Your task to perform on an android device: Open internet settings Image 0: 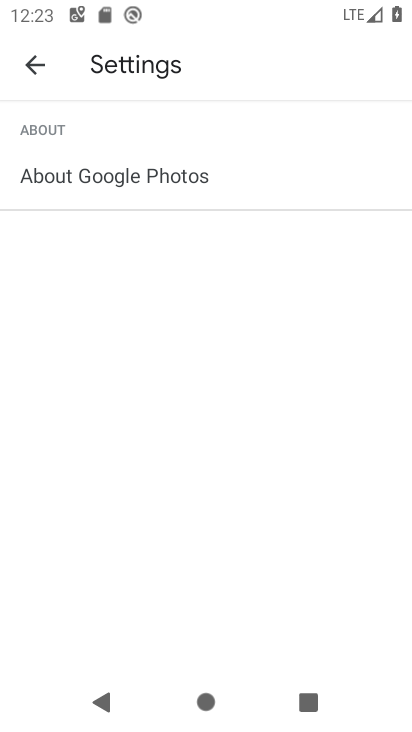
Step 0: press home button
Your task to perform on an android device: Open internet settings Image 1: 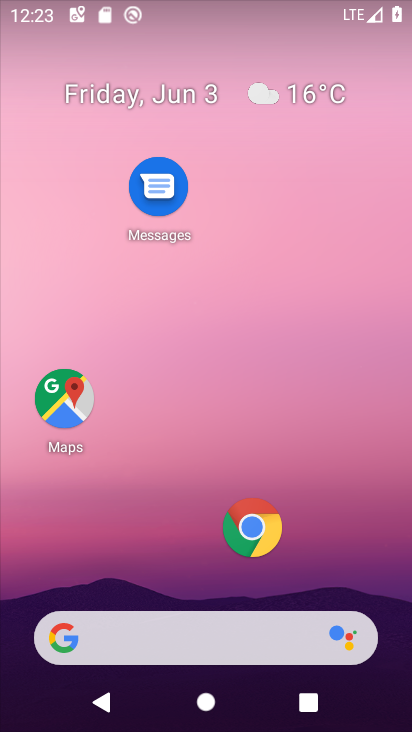
Step 1: drag from (207, 583) to (257, 200)
Your task to perform on an android device: Open internet settings Image 2: 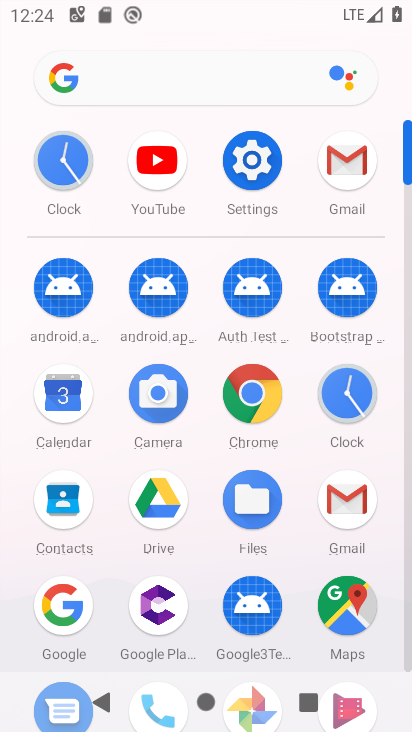
Step 2: click (249, 149)
Your task to perform on an android device: Open internet settings Image 3: 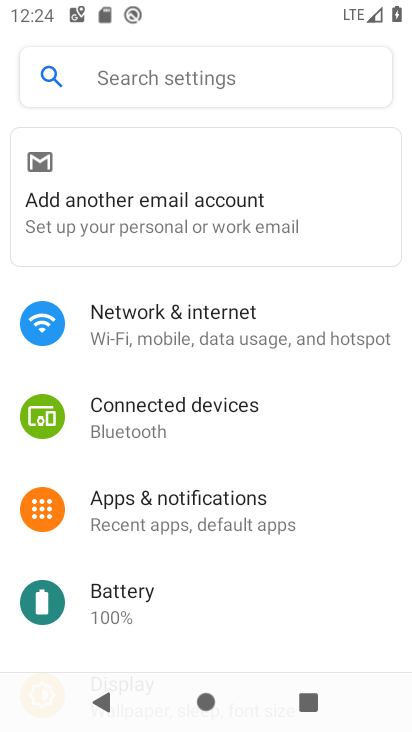
Step 3: click (206, 324)
Your task to perform on an android device: Open internet settings Image 4: 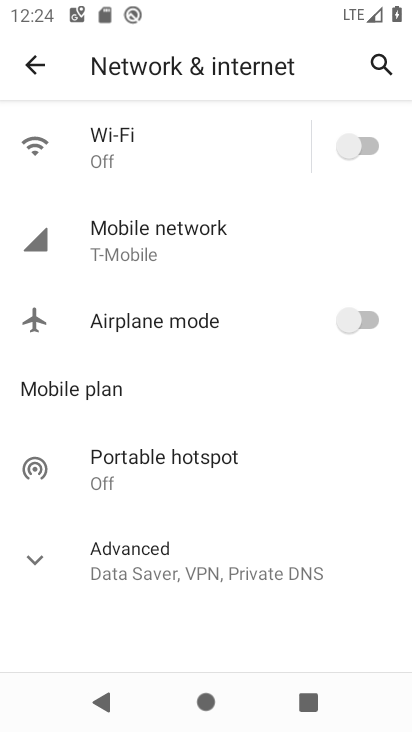
Step 4: click (28, 557)
Your task to perform on an android device: Open internet settings Image 5: 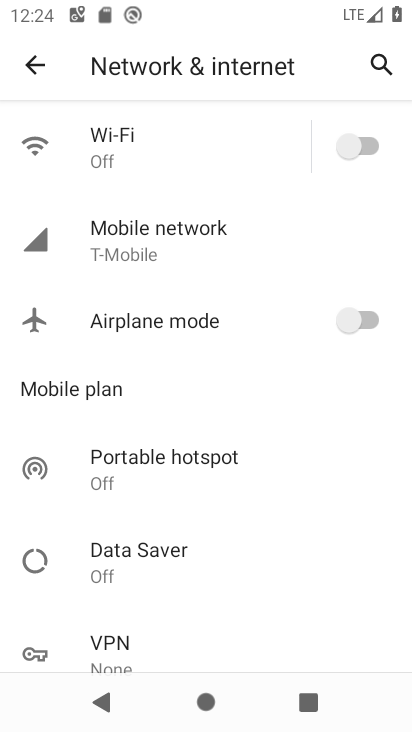
Step 5: task complete